Your task to perform on an android device: Open Amazon Image 0: 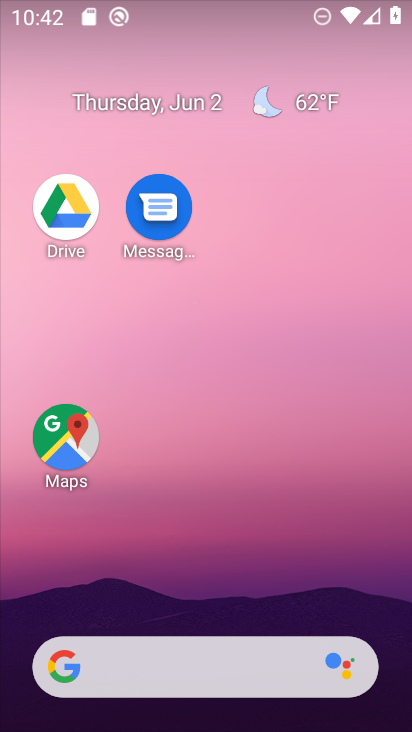
Step 0: drag from (168, 633) to (79, 64)
Your task to perform on an android device: Open Amazon Image 1: 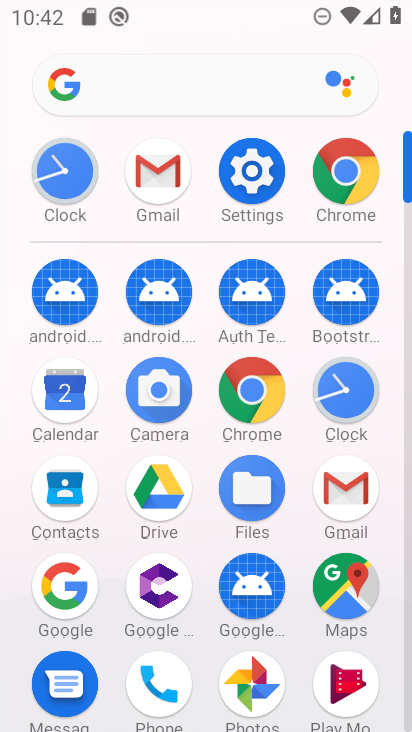
Step 1: click (241, 393)
Your task to perform on an android device: Open Amazon Image 2: 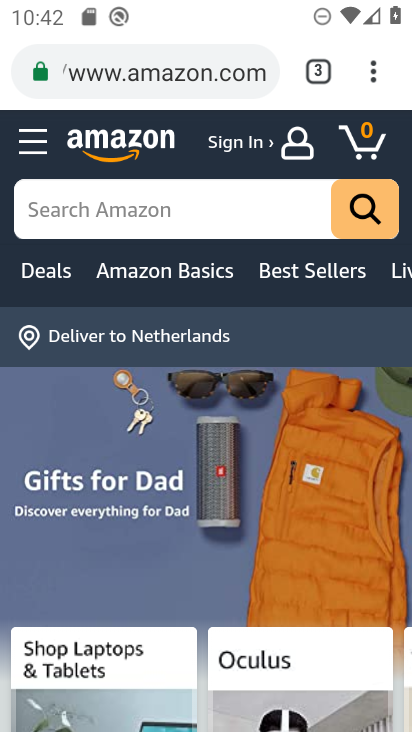
Step 2: task complete